Your task to perform on an android device: turn on improve location accuracy Image 0: 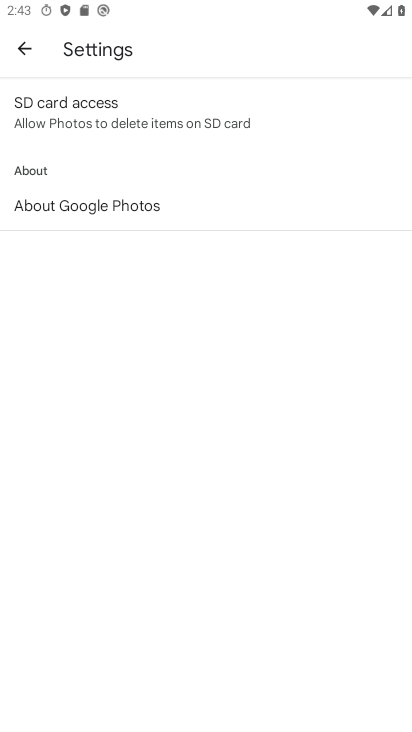
Step 0: press home button
Your task to perform on an android device: turn on improve location accuracy Image 1: 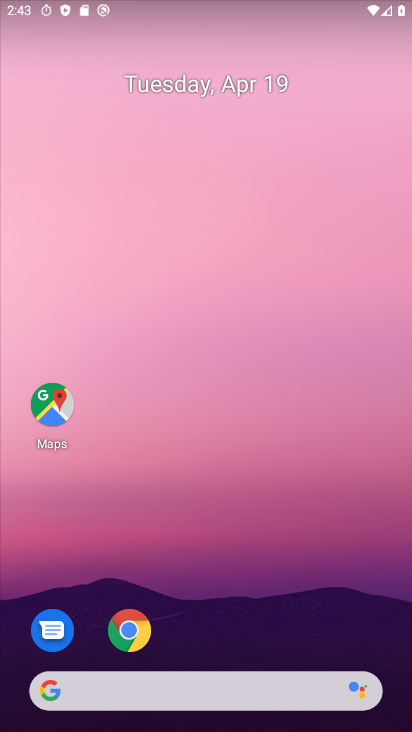
Step 1: drag from (259, 517) to (234, 99)
Your task to perform on an android device: turn on improve location accuracy Image 2: 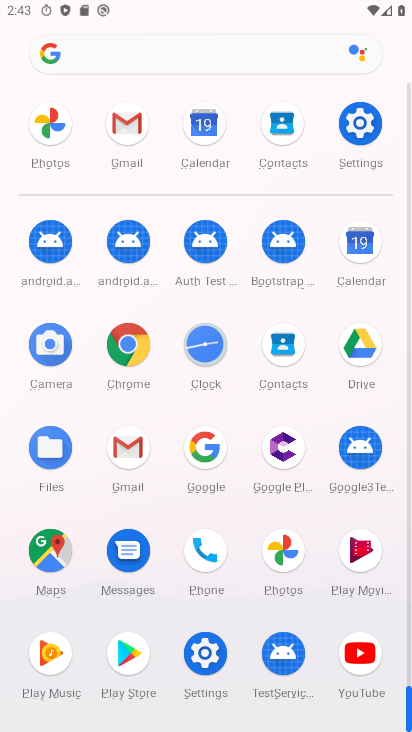
Step 2: click (356, 130)
Your task to perform on an android device: turn on improve location accuracy Image 3: 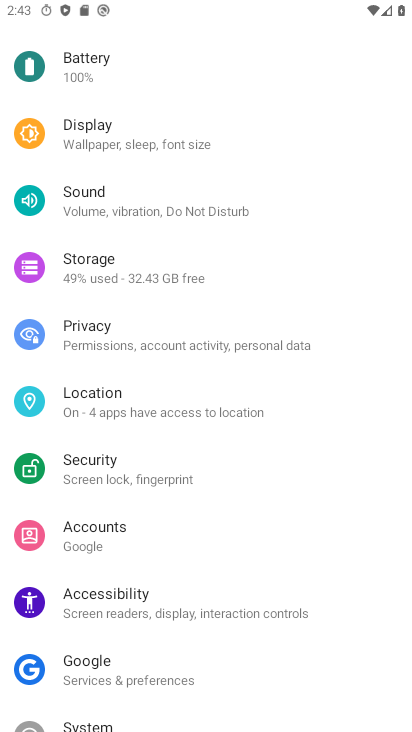
Step 3: click (164, 413)
Your task to perform on an android device: turn on improve location accuracy Image 4: 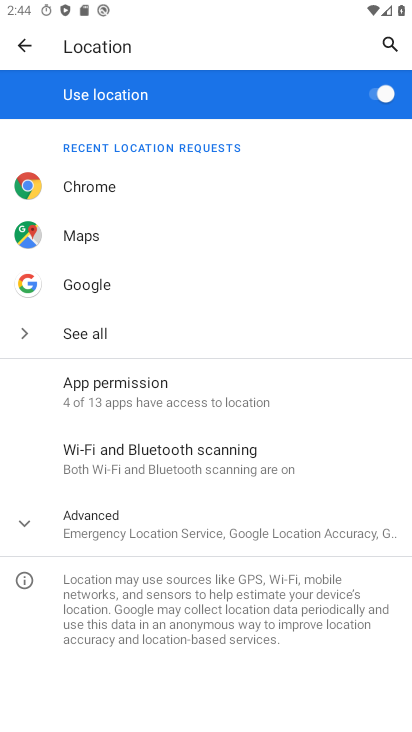
Step 4: click (207, 525)
Your task to perform on an android device: turn on improve location accuracy Image 5: 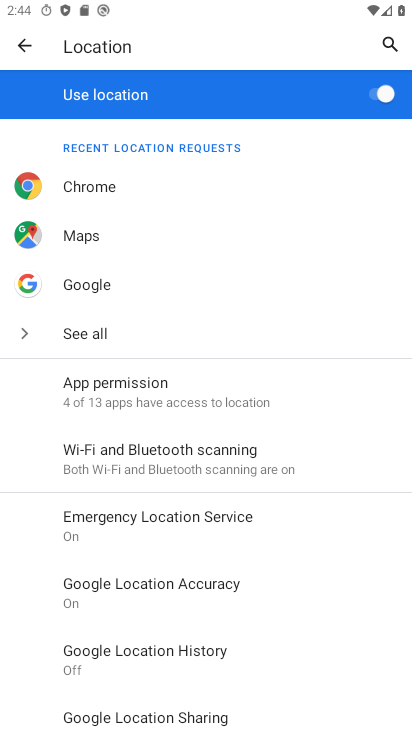
Step 5: task complete